Your task to perform on an android device: toggle priority inbox in the gmail app Image 0: 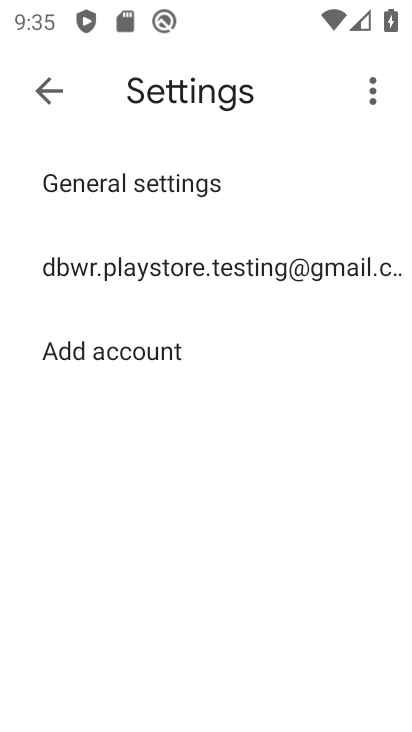
Step 0: press home button
Your task to perform on an android device: toggle priority inbox in the gmail app Image 1: 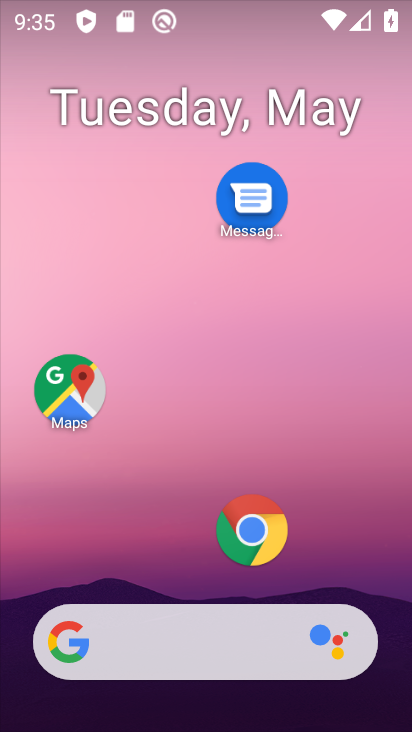
Step 1: drag from (176, 576) to (178, 180)
Your task to perform on an android device: toggle priority inbox in the gmail app Image 2: 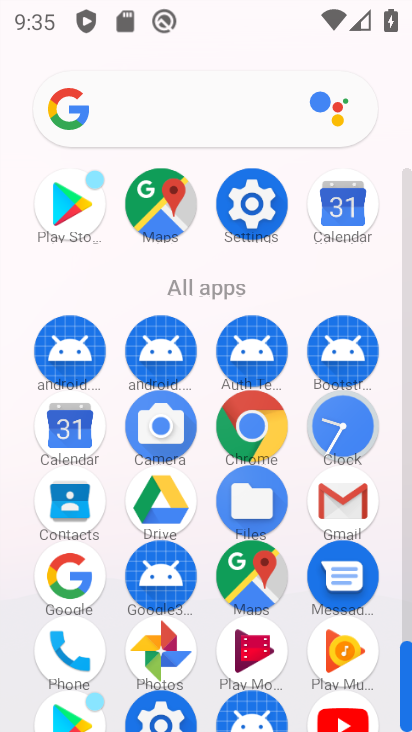
Step 2: click (349, 512)
Your task to perform on an android device: toggle priority inbox in the gmail app Image 3: 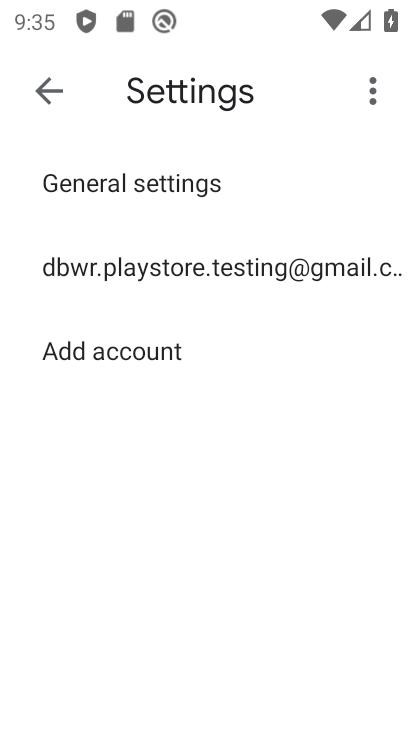
Step 3: click (225, 265)
Your task to perform on an android device: toggle priority inbox in the gmail app Image 4: 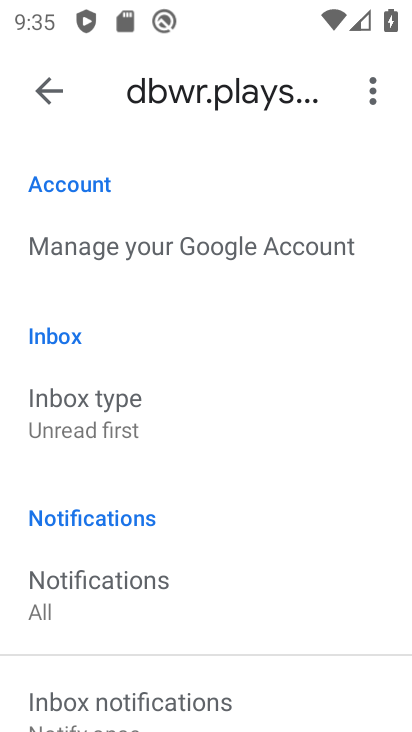
Step 4: drag from (152, 538) to (189, 324)
Your task to perform on an android device: toggle priority inbox in the gmail app Image 5: 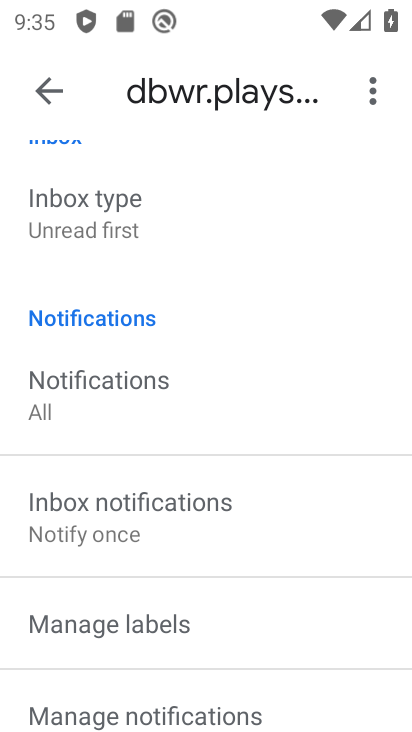
Step 5: click (116, 224)
Your task to perform on an android device: toggle priority inbox in the gmail app Image 6: 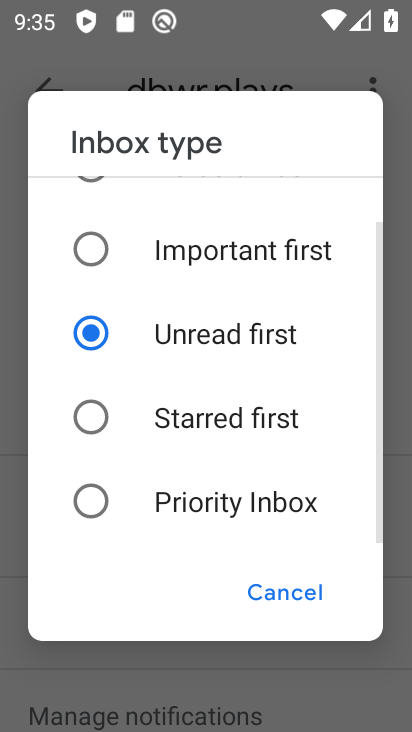
Step 6: click (96, 498)
Your task to perform on an android device: toggle priority inbox in the gmail app Image 7: 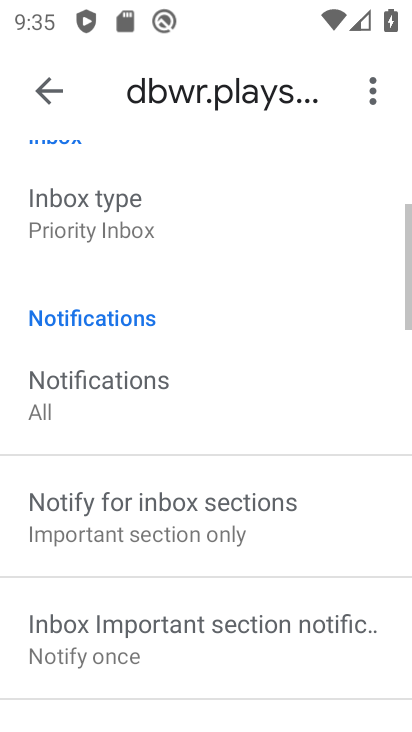
Step 7: task complete